Your task to perform on an android device: turn off airplane mode Image 0: 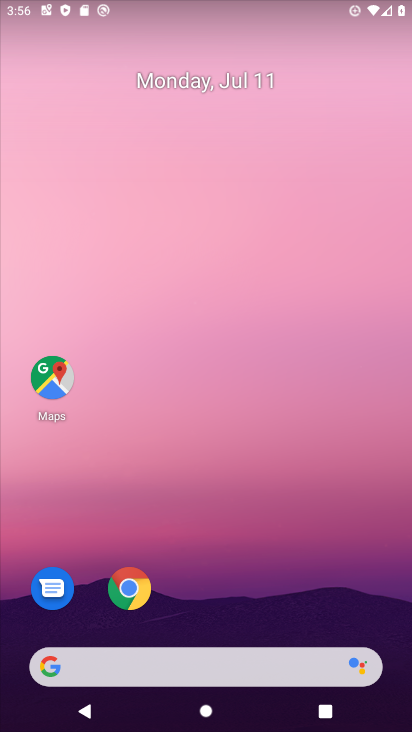
Step 0: drag from (222, 442) to (176, 37)
Your task to perform on an android device: turn off airplane mode Image 1: 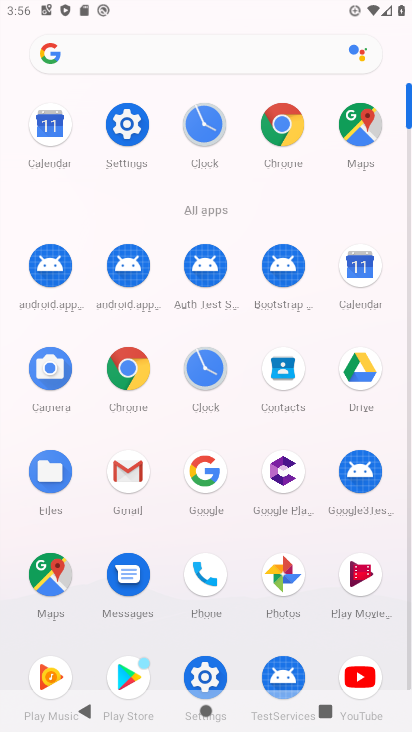
Step 1: click (115, 141)
Your task to perform on an android device: turn off airplane mode Image 2: 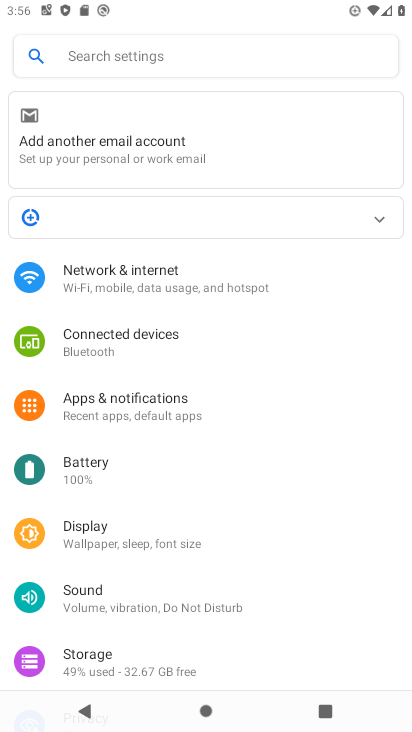
Step 2: click (154, 286)
Your task to perform on an android device: turn off airplane mode Image 3: 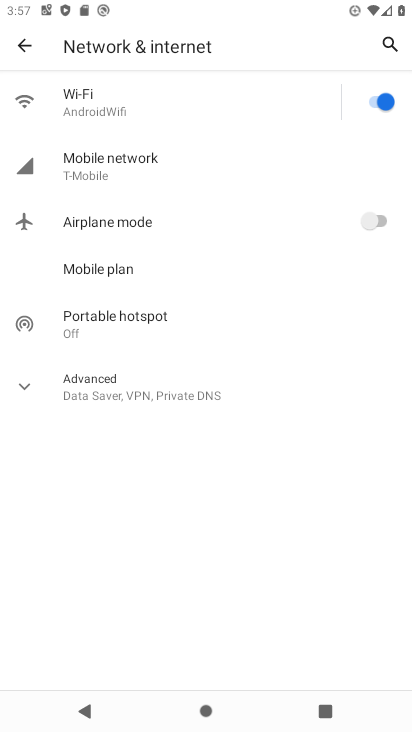
Step 3: task complete